Your task to perform on an android device: turn on javascript in the chrome app Image 0: 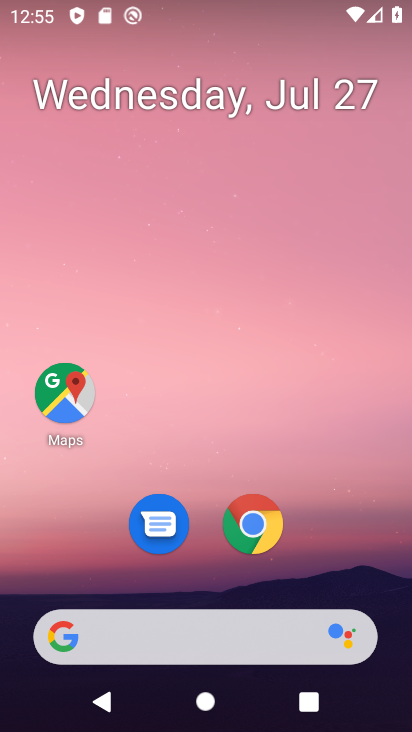
Step 0: click (258, 536)
Your task to perform on an android device: turn on javascript in the chrome app Image 1: 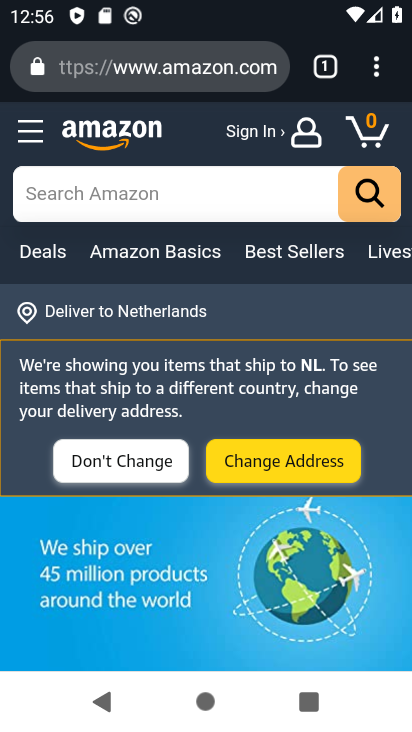
Step 1: click (379, 75)
Your task to perform on an android device: turn on javascript in the chrome app Image 2: 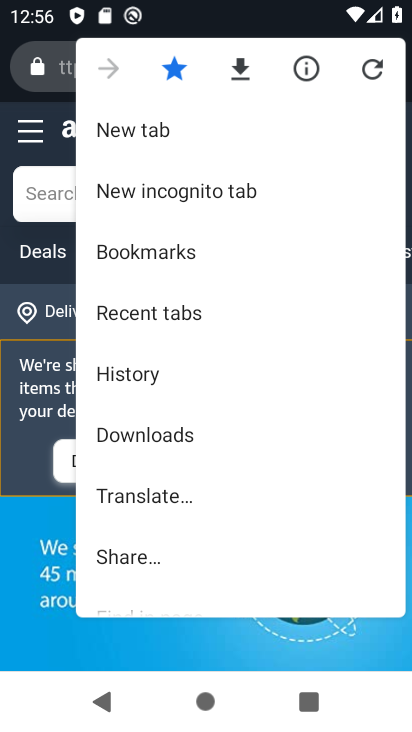
Step 2: drag from (250, 390) to (275, 91)
Your task to perform on an android device: turn on javascript in the chrome app Image 3: 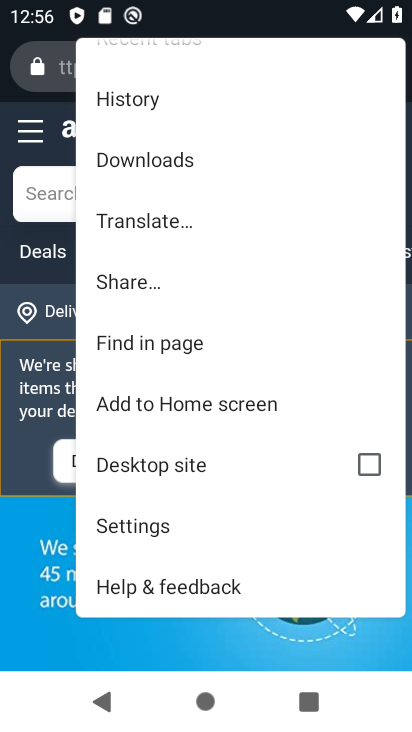
Step 3: click (148, 518)
Your task to perform on an android device: turn on javascript in the chrome app Image 4: 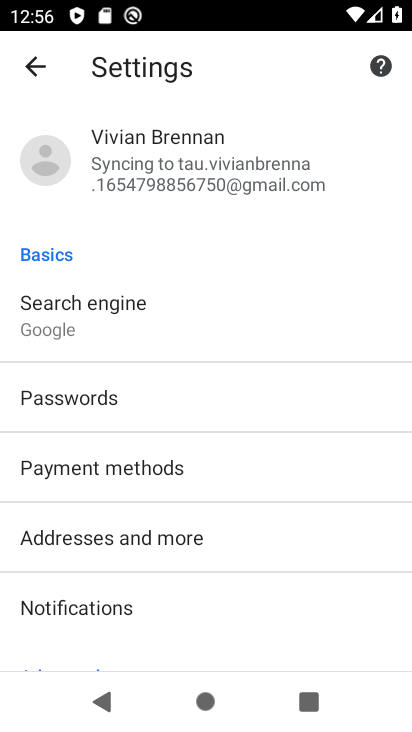
Step 4: drag from (252, 534) to (316, 207)
Your task to perform on an android device: turn on javascript in the chrome app Image 5: 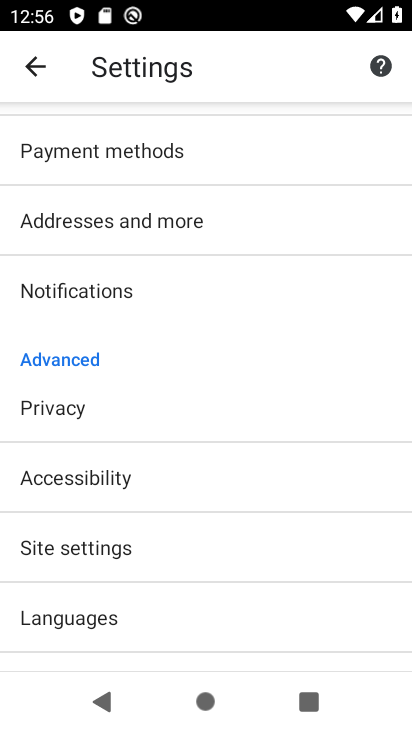
Step 5: click (170, 546)
Your task to perform on an android device: turn on javascript in the chrome app Image 6: 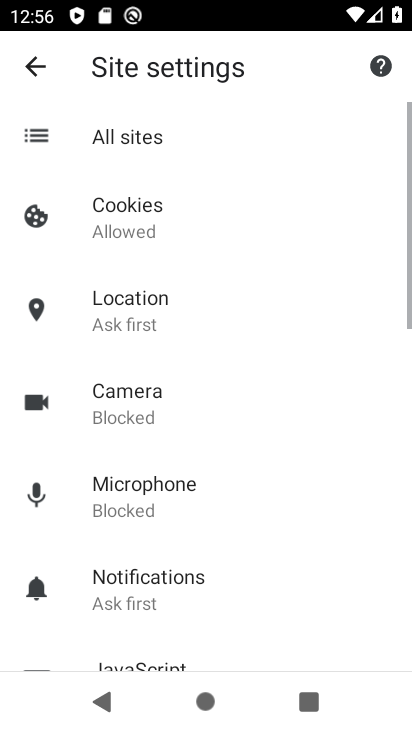
Step 6: drag from (252, 526) to (265, 410)
Your task to perform on an android device: turn on javascript in the chrome app Image 7: 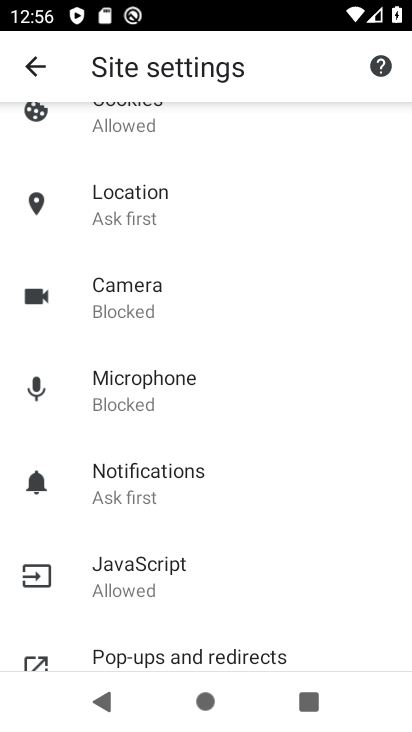
Step 7: click (170, 561)
Your task to perform on an android device: turn on javascript in the chrome app Image 8: 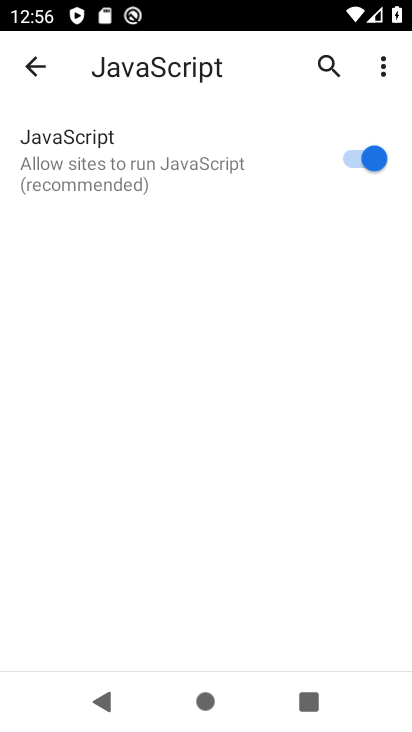
Step 8: task complete